Your task to perform on an android device: turn off wifi Image 0: 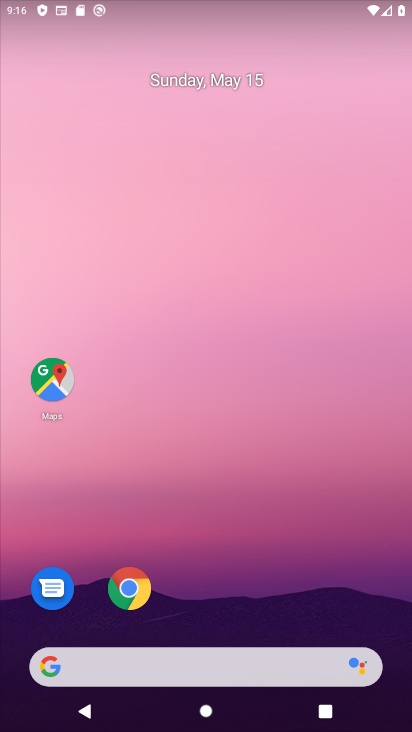
Step 0: drag from (241, 610) to (292, 9)
Your task to perform on an android device: turn off wifi Image 1: 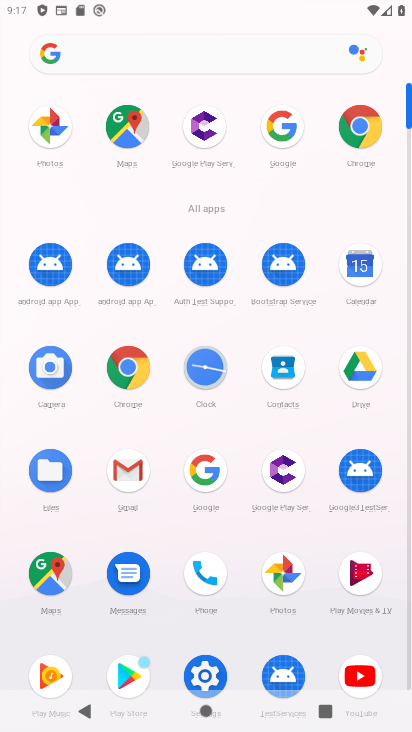
Step 1: click (212, 663)
Your task to perform on an android device: turn off wifi Image 2: 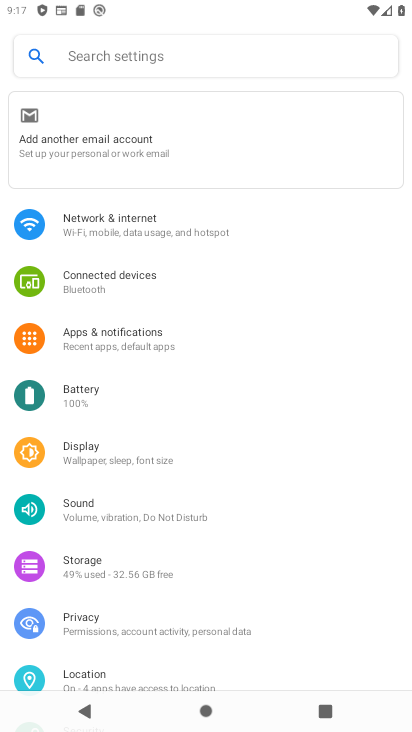
Step 2: click (123, 222)
Your task to perform on an android device: turn off wifi Image 3: 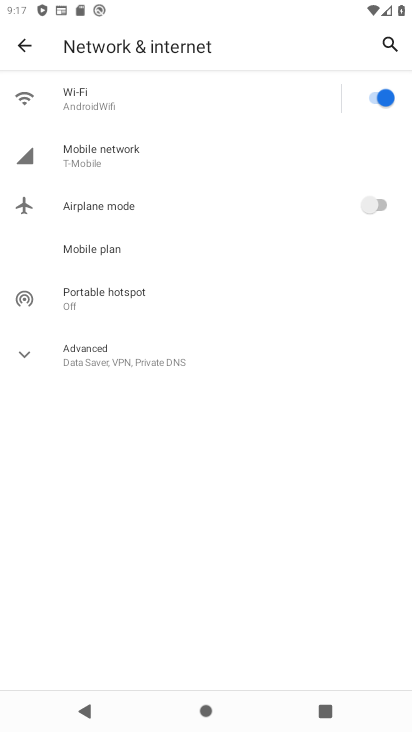
Step 3: click (380, 101)
Your task to perform on an android device: turn off wifi Image 4: 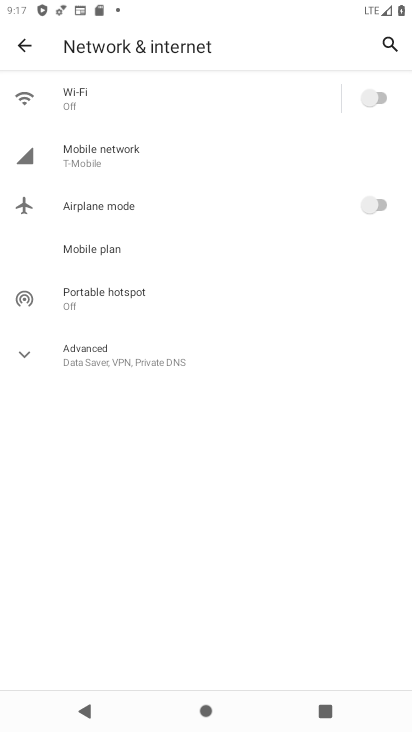
Step 4: task complete